Your task to perform on an android device: search for starred emails in the gmail app Image 0: 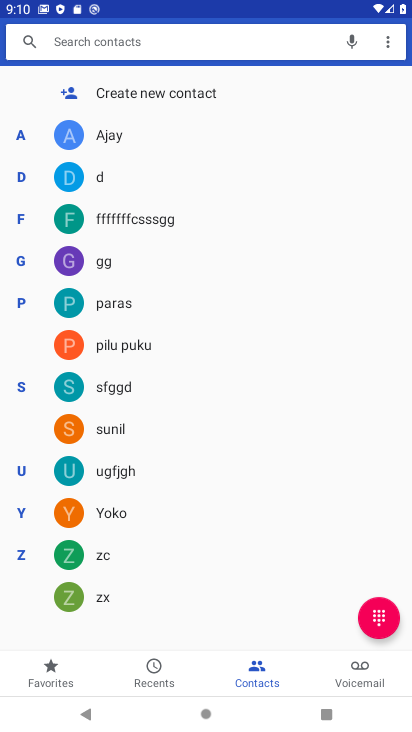
Step 0: press home button
Your task to perform on an android device: search for starred emails in the gmail app Image 1: 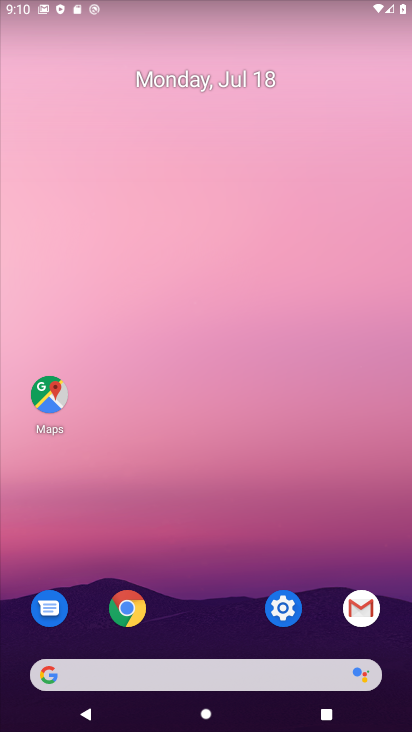
Step 1: click (359, 610)
Your task to perform on an android device: search for starred emails in the gmail app Image 2: 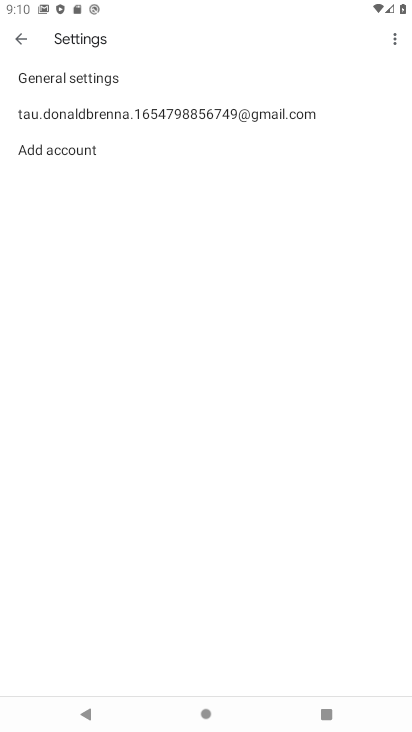
Step 2: click (16, 32)
Your task to perform on an android device: search for starred emails in the gmail app Image 3: 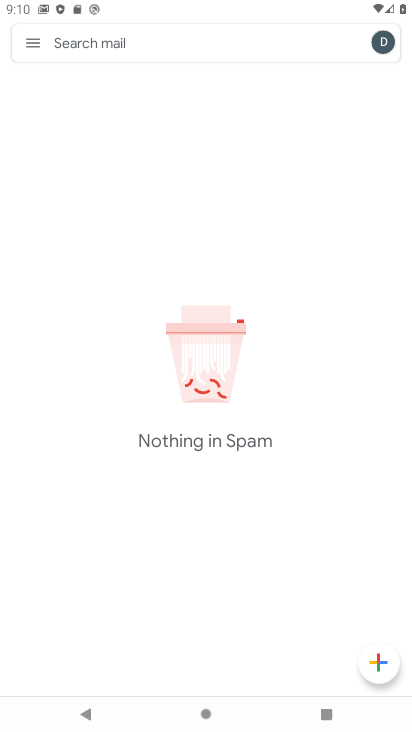
Step 3: click (31, 50)
Your task to perform on an android device: search for starred emails in the gmail app Image 4: 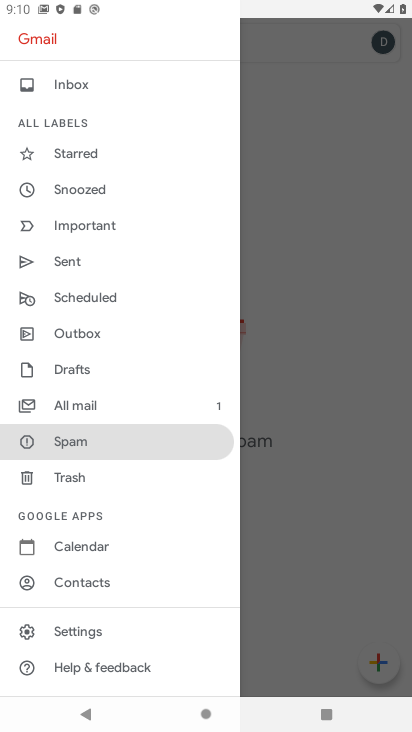
Step 4: click (87, 157)
Your task to perform on an android device: search for starred emails in the gmail app Image 5: 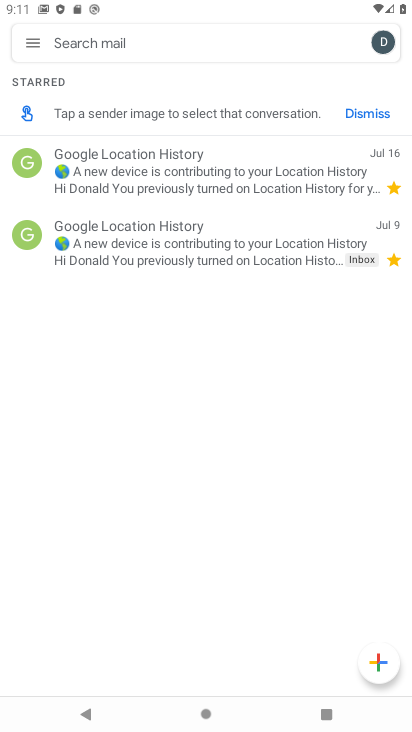
Step 5: task complete